Your task to perform on an android device: choose inbox layout in the gmail app Image 0: 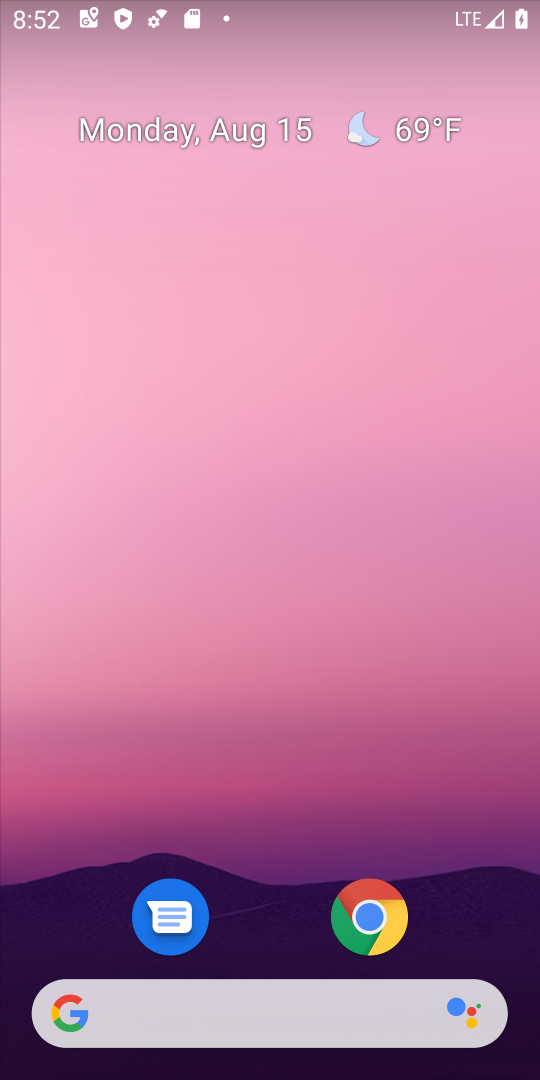
Step 0: drag from (293, 822) to (375, 0)
Your task to perform on an android device: choose inbox layout in the gmail app Image 1: 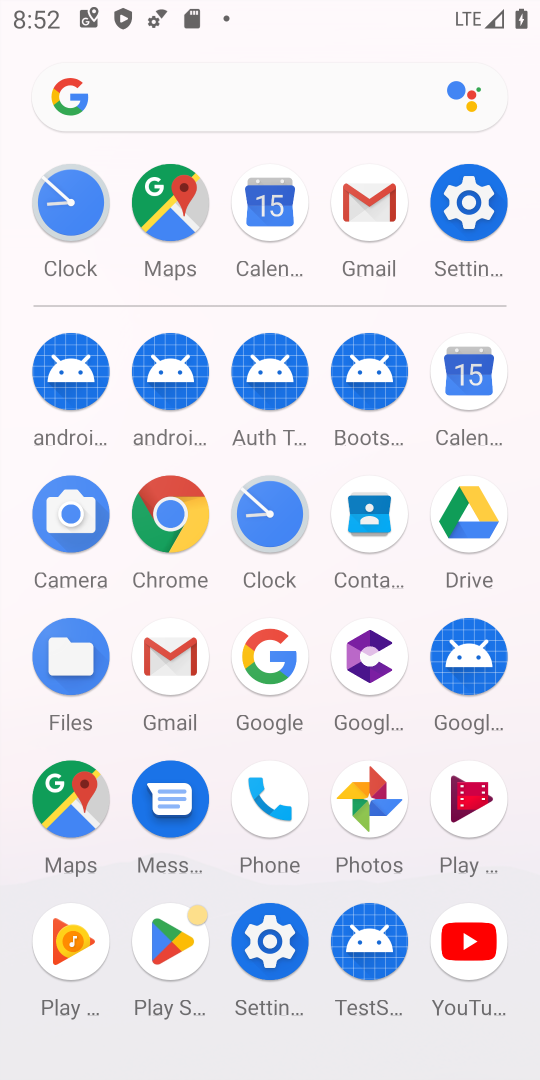
Step 1: click (375, 209)
Your task to perform on an android device: choose inbox layout in the gmail app Image 2: 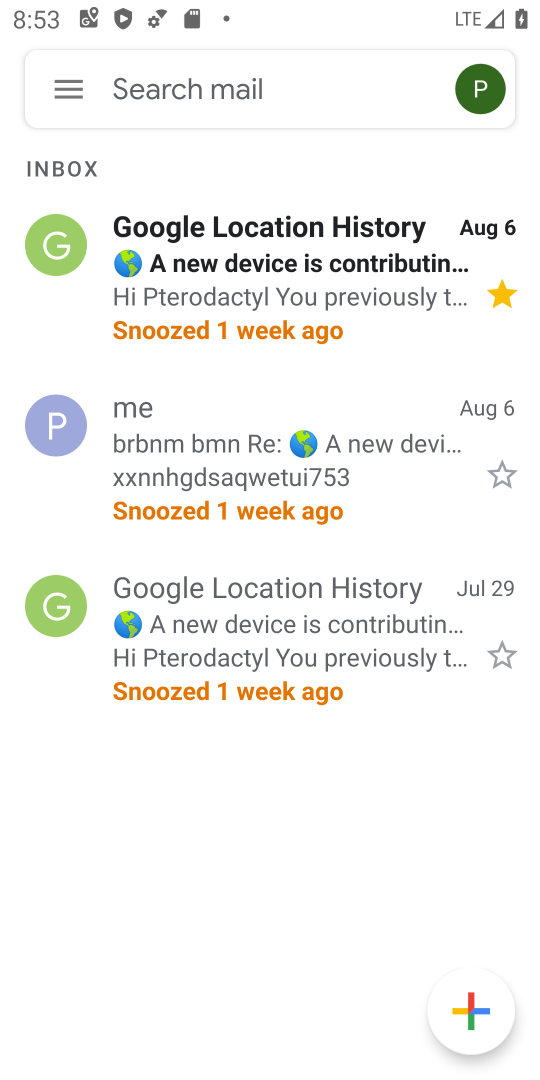
Step 2: click (66, 83)
Your task to perform on an android device: choose inbox layout in the gmail app Image 3: 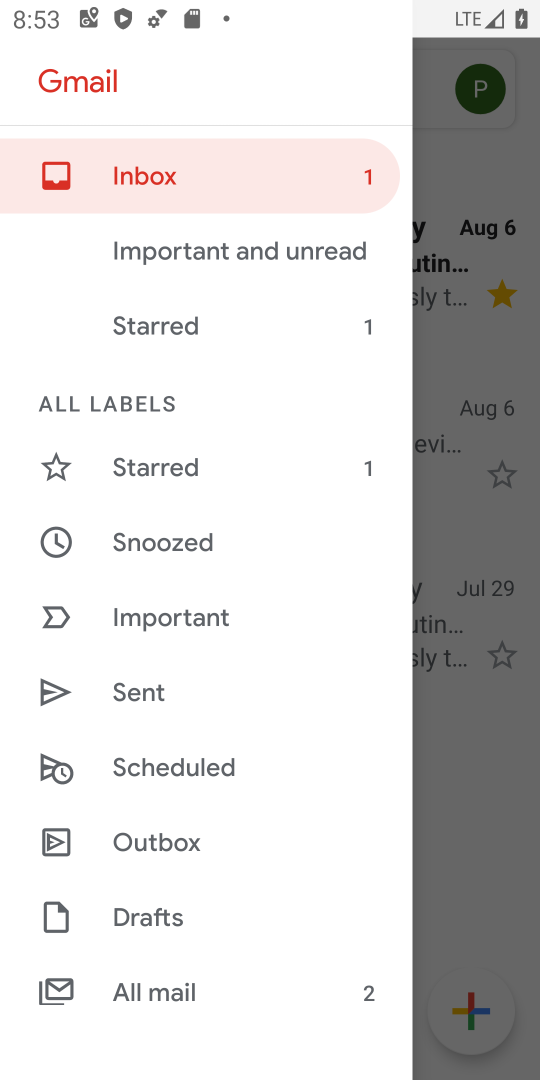
Step 3: drag from (257, 810) to (307, 66)
Your task to perform on an android device: choose inbox layout in the gmail app Image 4: 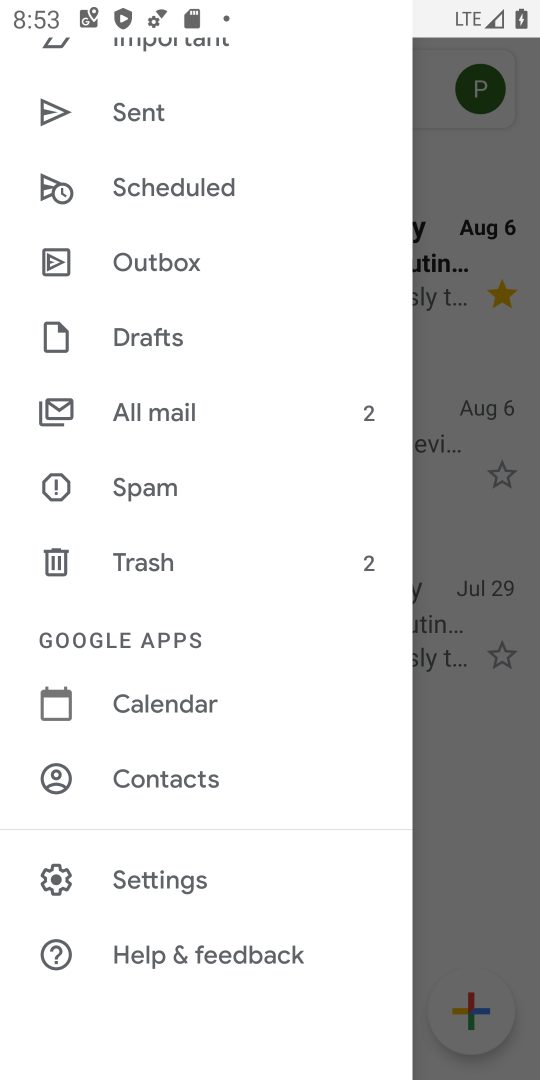
Step 4: click (196, 882)
Your task to perform on an android device: choose inbox layout in the gmail app Image 5: 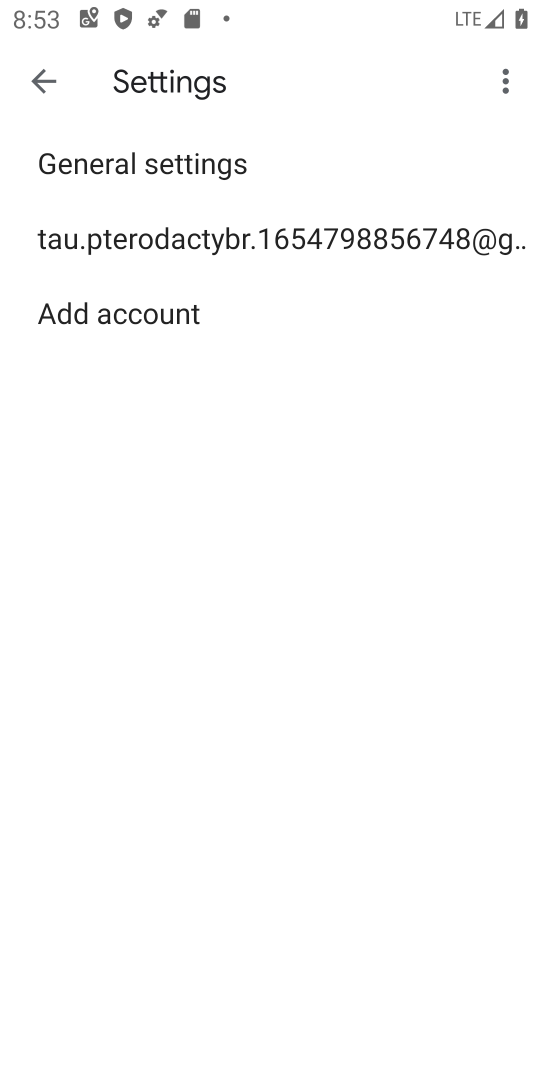
Step 5: click (354, 245)
Your task to perform on an android device: choose inbox layout in the gmail app Image 6: 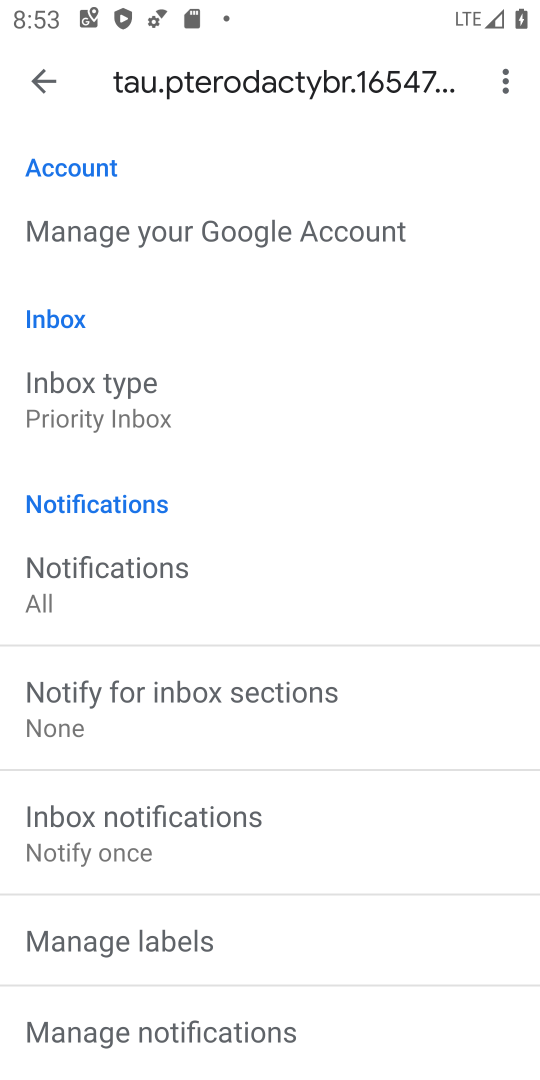
Step 6: click (144, 397)
Your task to perform on an android device: choose inbox layout in the gmail app Image 7: 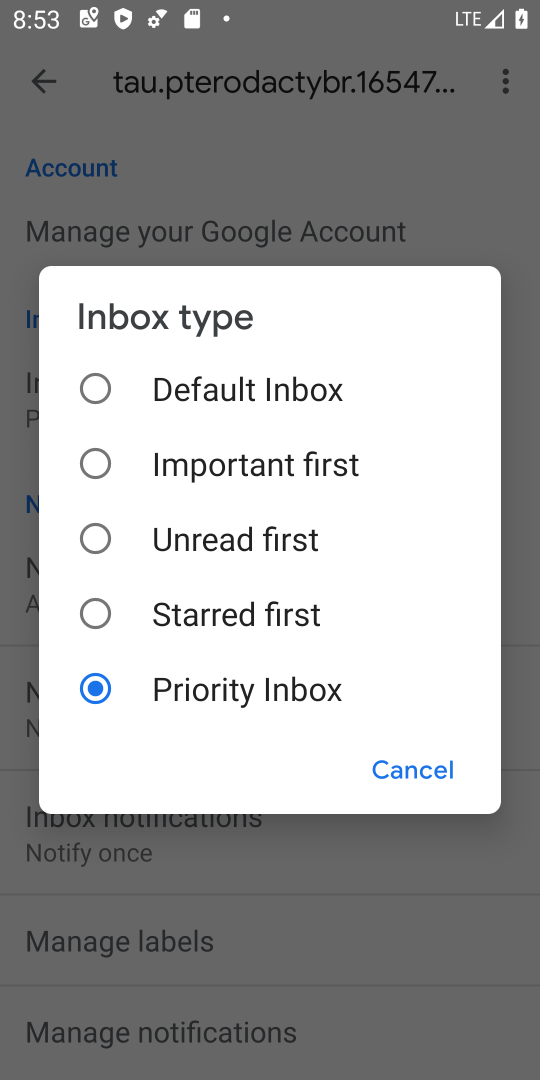
Step 7: click (145, 385)
Your task to perform on an android device: choose inbox layout in the gmail app Image 8: 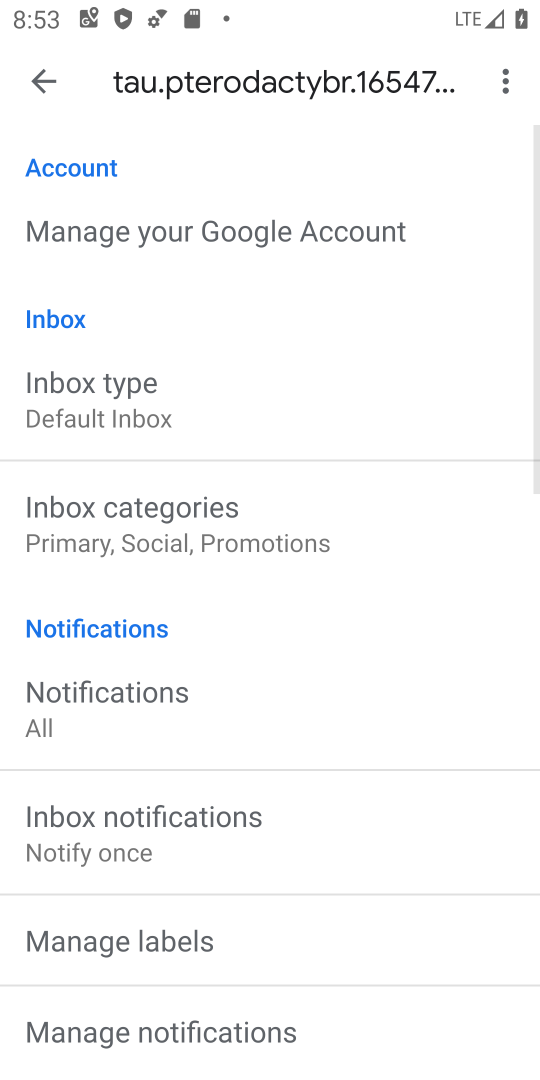
Step 8: task complete